Your task to perform on an android device: Search for seafood restaurants on Google Maps Image 0: 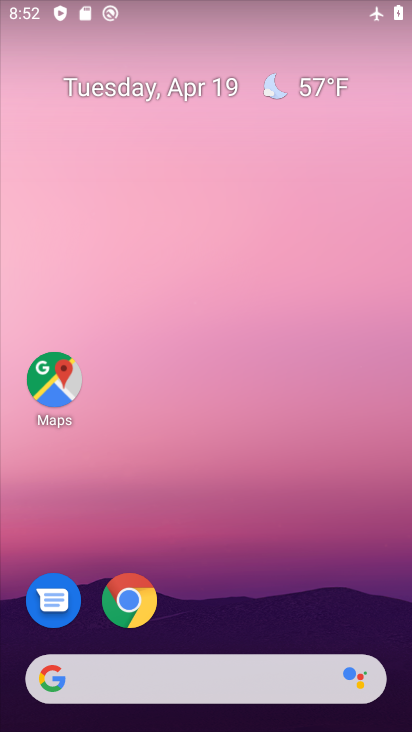
Step 0: drag from (370, 610) to (364, 114)
Your task to perform on an android device: Search for seafood restaurants on Google Maps Image 1: 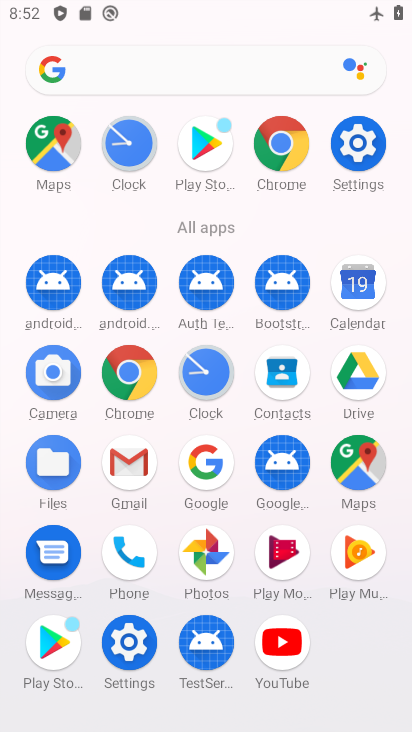
Step 1: click (360, 470)
Your task to perform on an android device: Search for seafood restaurants on Google Maps Image 2: 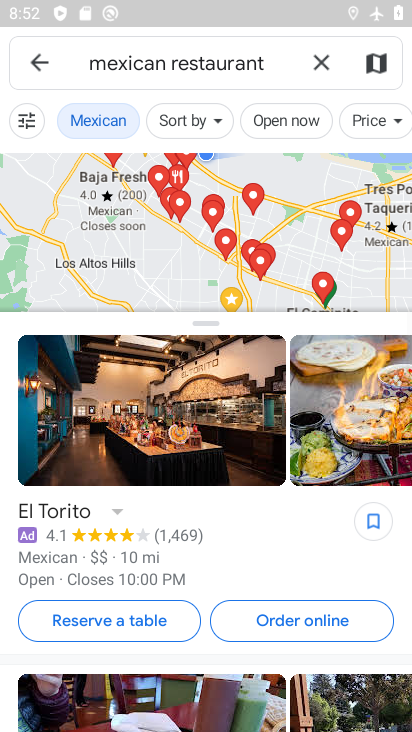
Step 2: click (320, 65)
Your task to perform on an android device: Search for seafood restaurants on Google Maps Image 3: 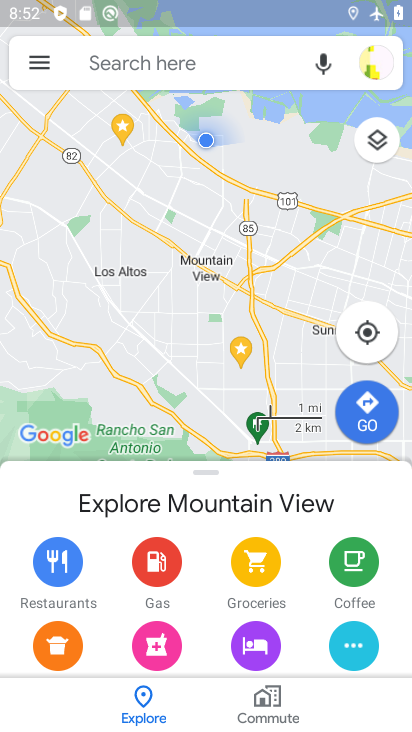
Step 3: click (209, 68)
Your task to perform on an android device: Search for seafood restaurants on Google Maps Image 4: 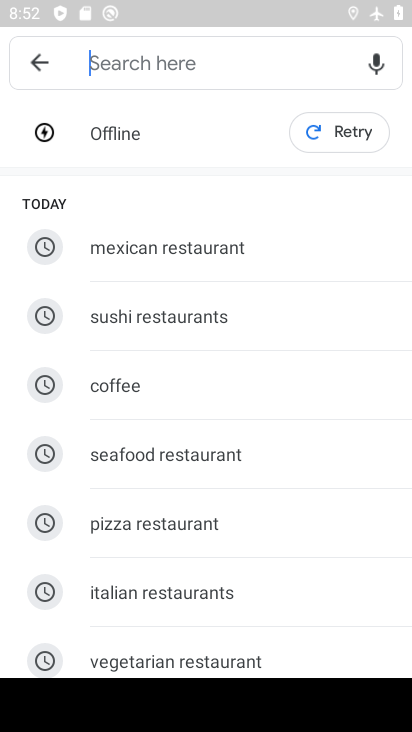
Step 4: type "seafood restaurants"
Your task to perform on an android device: Search for seafood restaurants on Google Maps Image 5: 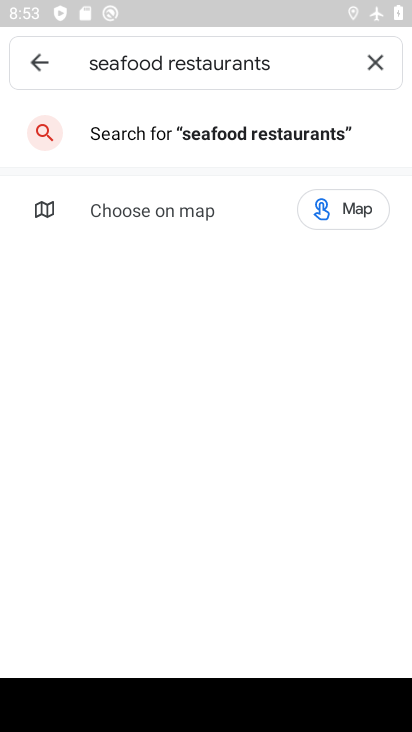
Step 5: task complete